Your task to perform on an android device: Go to settings Image 0: 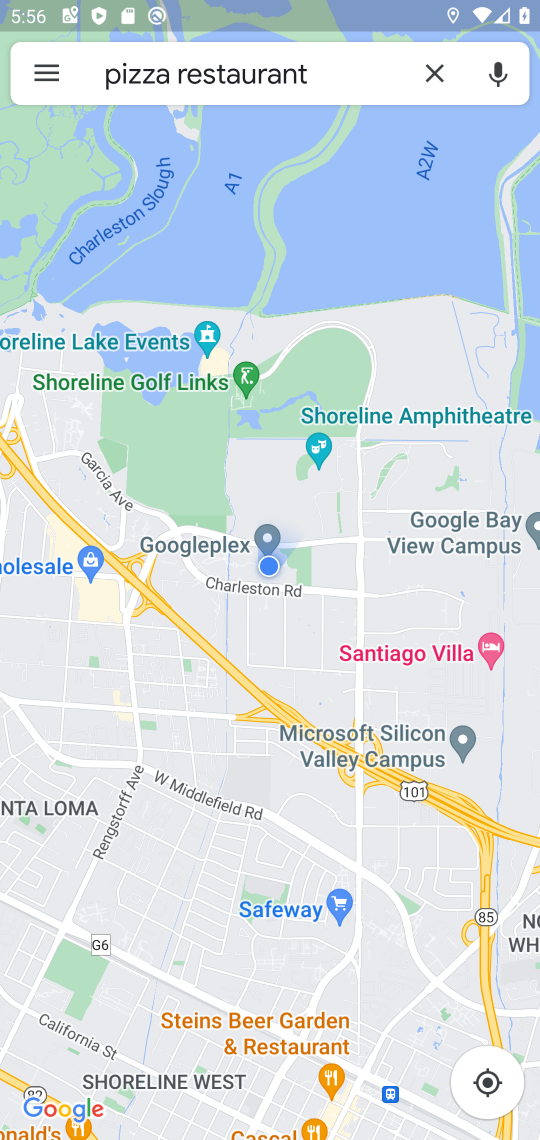
Step 0: press home button
Your task to perform on an android device: Go to settings Image 1: 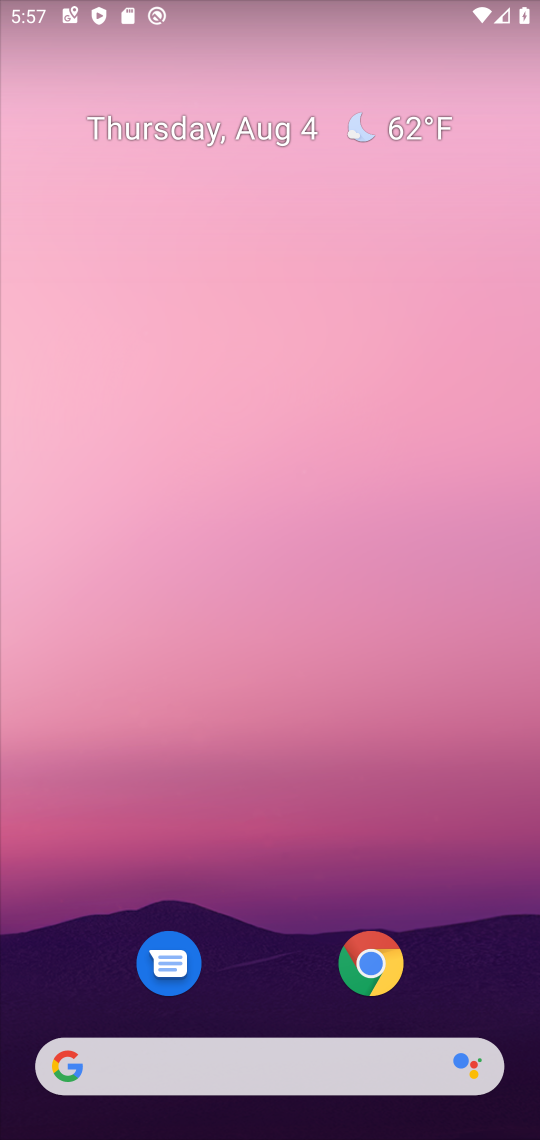
Step 1: drag from (281, 910) to (240, 3)
Your task to perform on an android device: Go to settings Image 2: 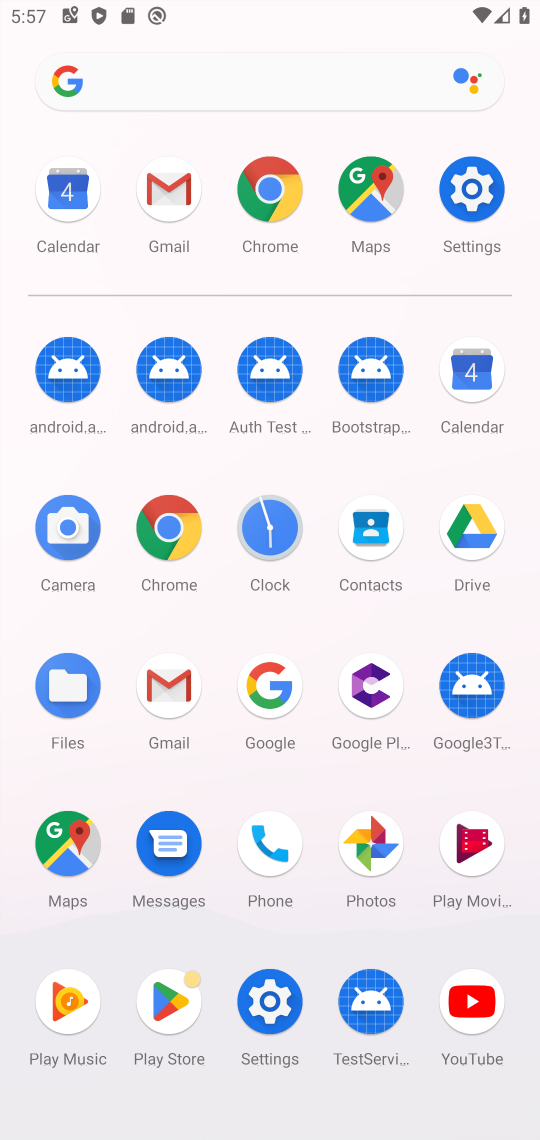
Step 2: click (266, 995)
Your task to perform on an android device: Go to settings Image 3: 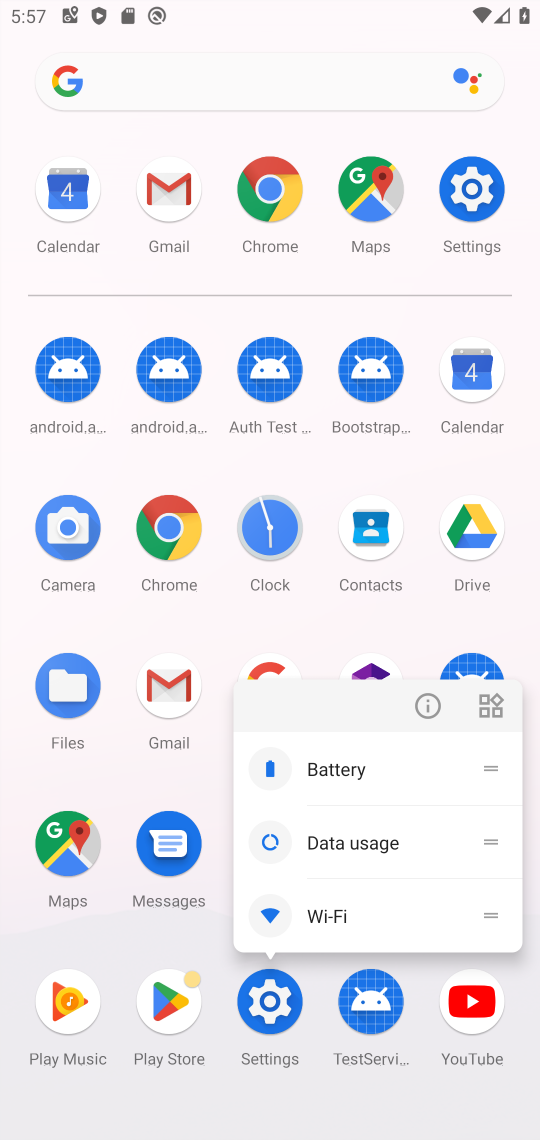
Step 3: click (266, 995)
Your task to perform on an android device: Go to settings Image 4: 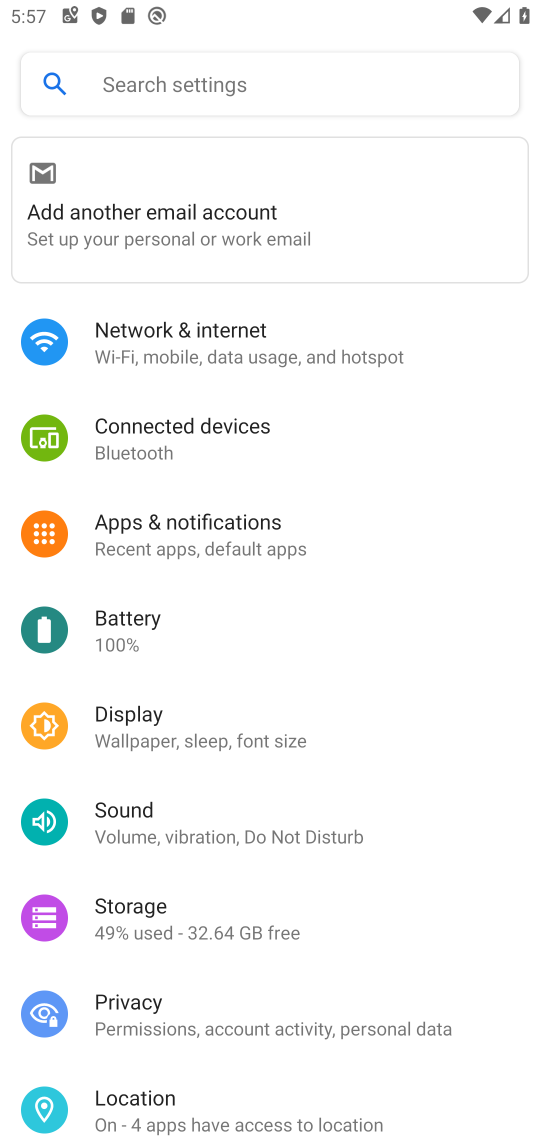
Step 4: task complete